Your task to perform on an android device: Open Amazon Image 0: 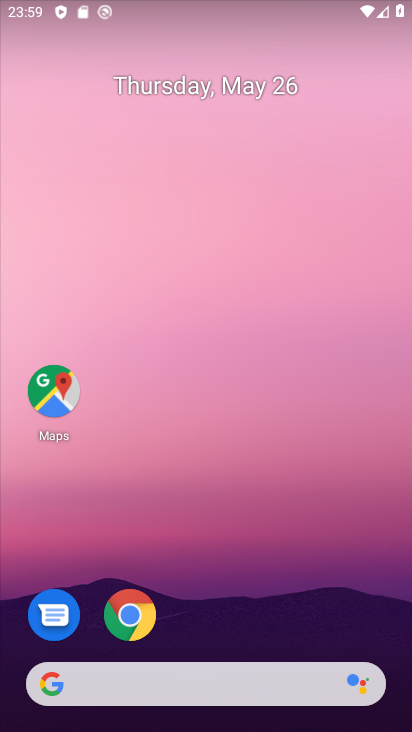
Step 0: drag from (381, 633) to (371, 246)
Your task to perform on an android device: Open Amazon Image 1: 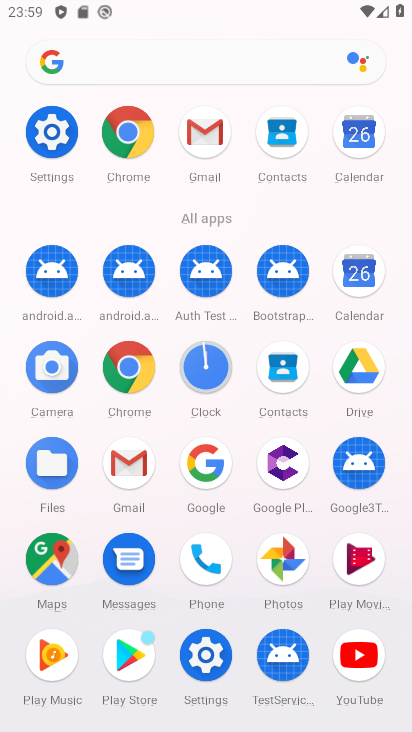
Step 1: click (134, 381)
Your task to perform on an android device: Open Amazon Image 2: 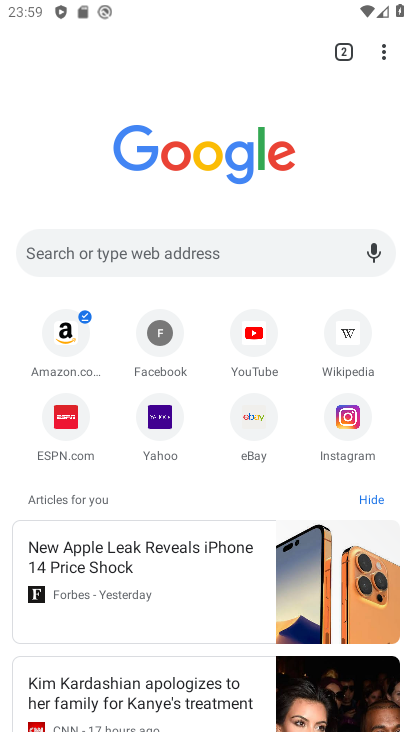
Step 2: click (75, 348)
Your task to perform on an android device: Open Amazon Image 3: 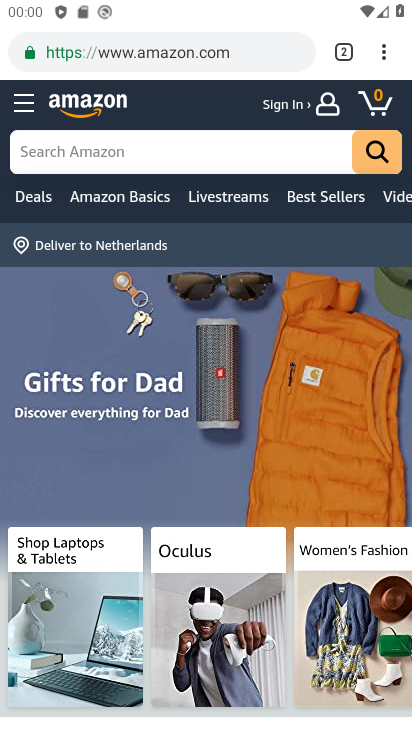
Step 3: task complete